Your task to perform on an android device: Open Reddit.com Image 0: 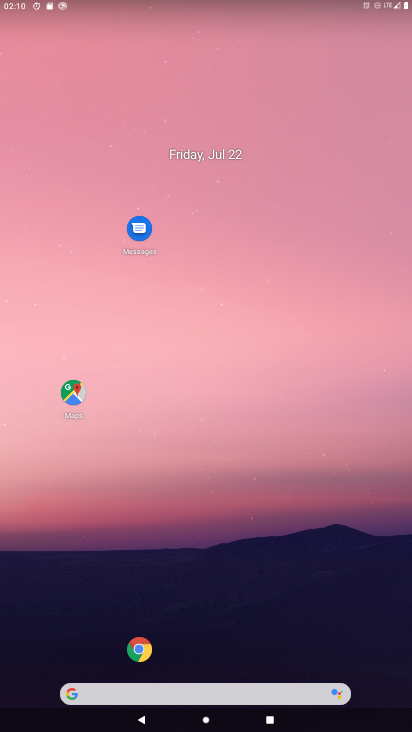
Step 0: click (67, 401)
Your task to perform on an android device: Open Reddit.com Image 1: 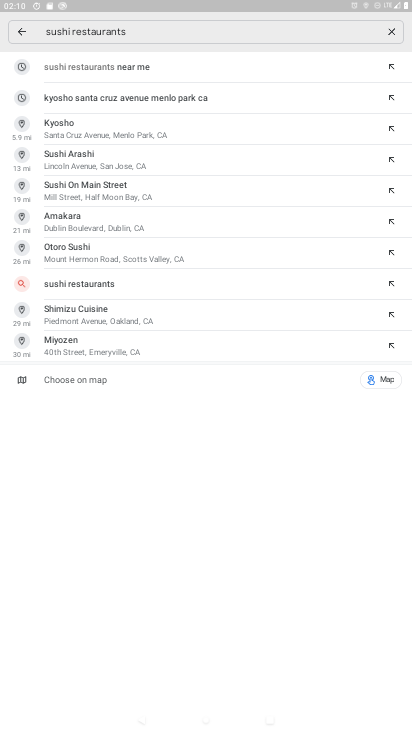
Step 1: click (20, 39)
Your task to perform on an android device: Open Reddit.com Image 2: 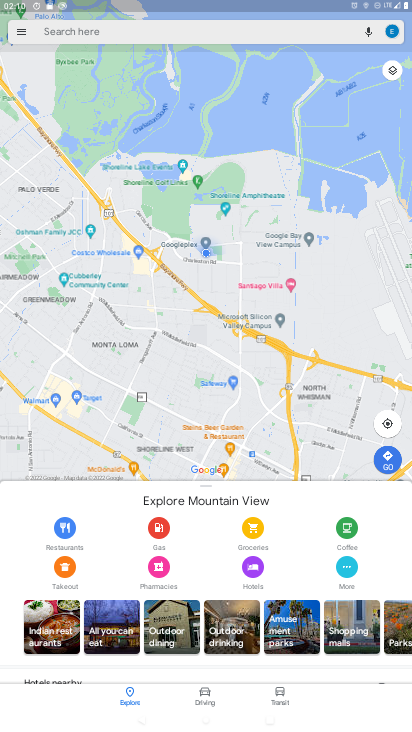
Step 2: click (51, 23)
Your task to perform on an android device: Open Reddit.com Image 3: 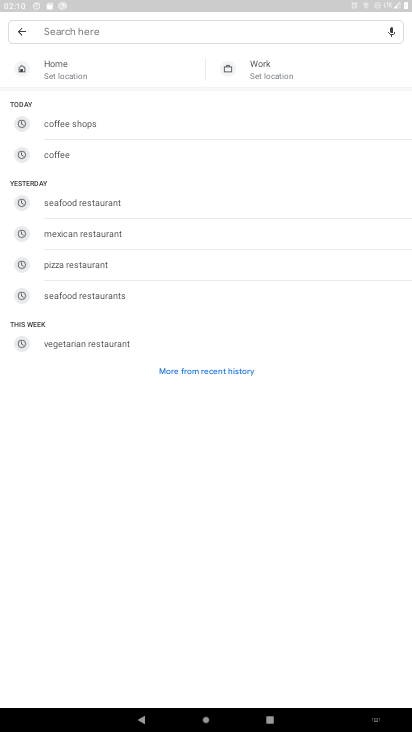
Step 3: press home button
Your task to perform on an android device: Open Reddit.com Image 4: 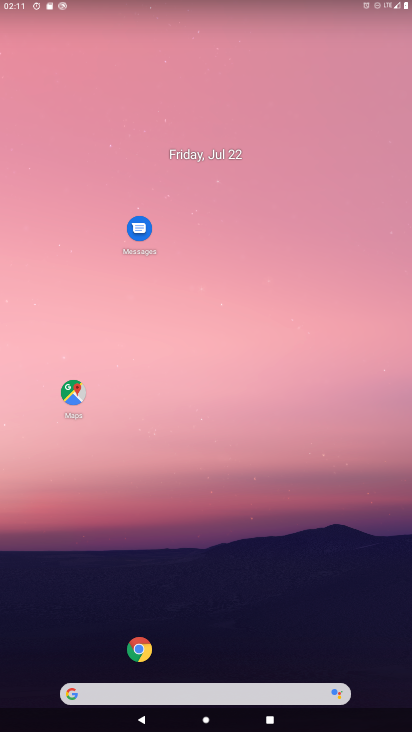
Step 4: drag from (55, 652) to (403, 68)
Your task to perform on an android device: Open Reddit.com Image 5: 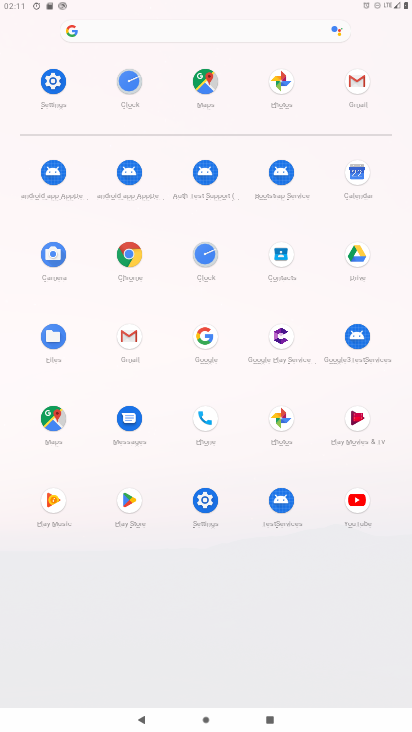
Step 5: click (110, 29)
Your task to perform on an android device: Open Reddit.com Image 6: 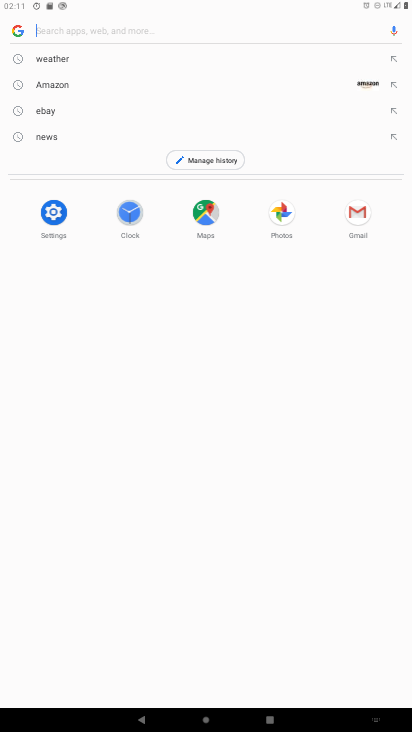
Step 6: type "Reddit.com"
Your task to perform on an android device: Open Reddit.com Image 7: 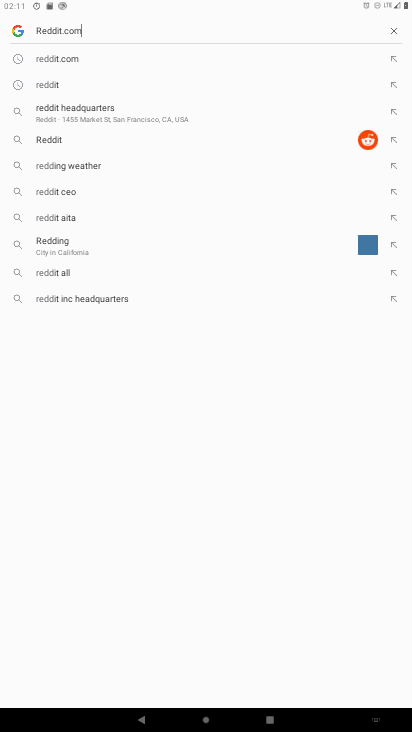
Step 7: type ""
Your task to perform on an android device: Open Reddit.com Image 8: 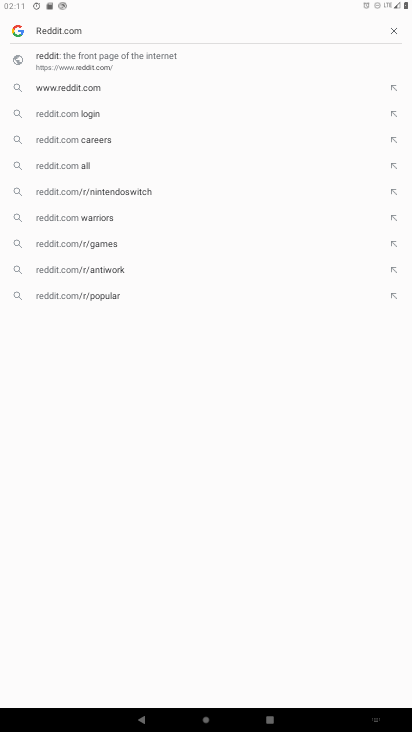
Step 8: click (47, 59)
Your task to perform on an android device: Open Reddit.com Image 9: 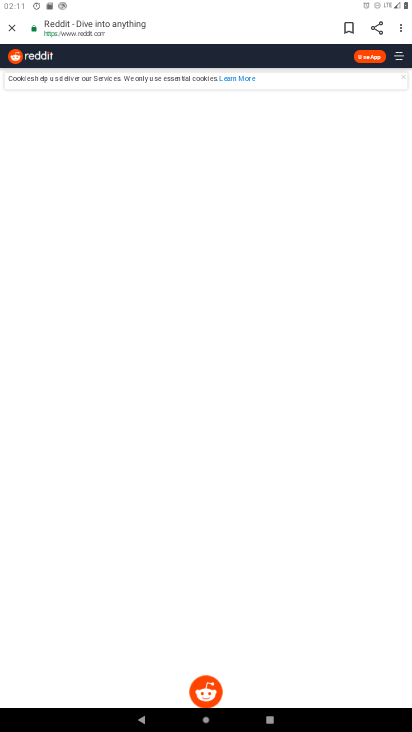
Step 9: task complete